Your task to perform on an android device: Go to CNN.com Image 0: 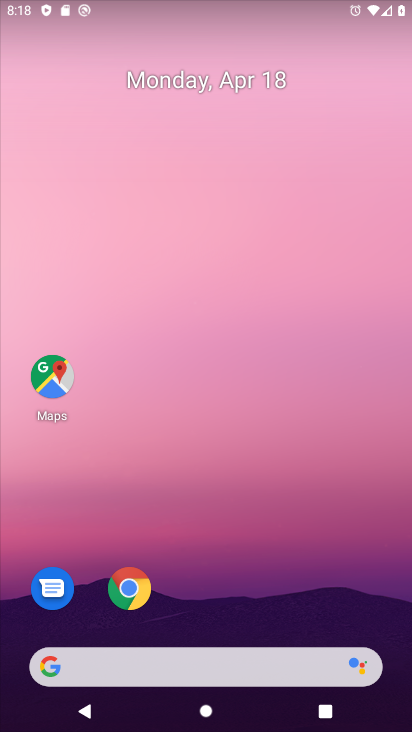
Step 0: click (189, 665)
Your task to perform on an android device: Go to CNN.com Image 1: 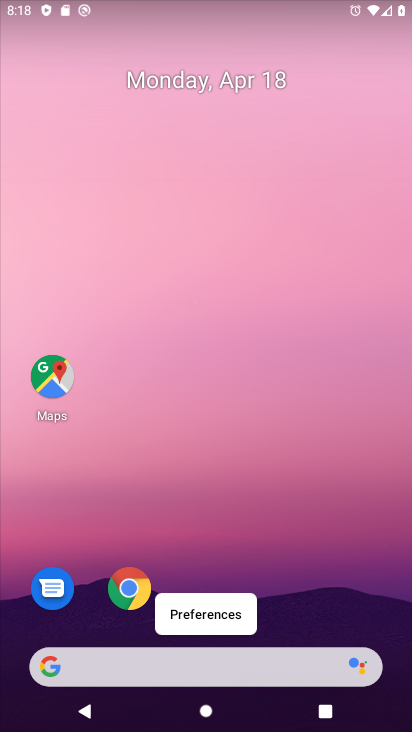
Step 1: drag from (292, 564) to (310, 2)
Your task to perform on an android device: Go to CNN.com Image 2: 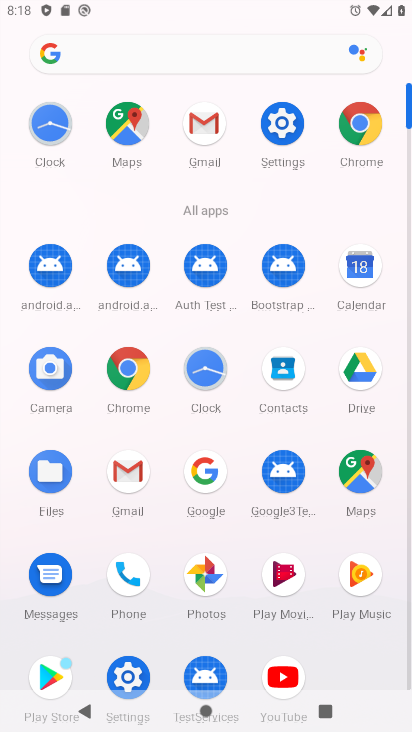
Step 2: click (204, 471)
Your task to perform on an android device: Go to CNN.com Image 3: 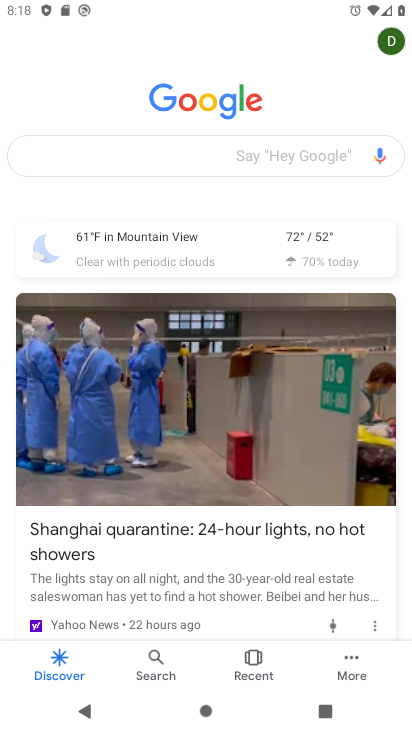
Step 3: click (185, 164)
Your task to perform on an android device: Go to CNN.com Image 4: 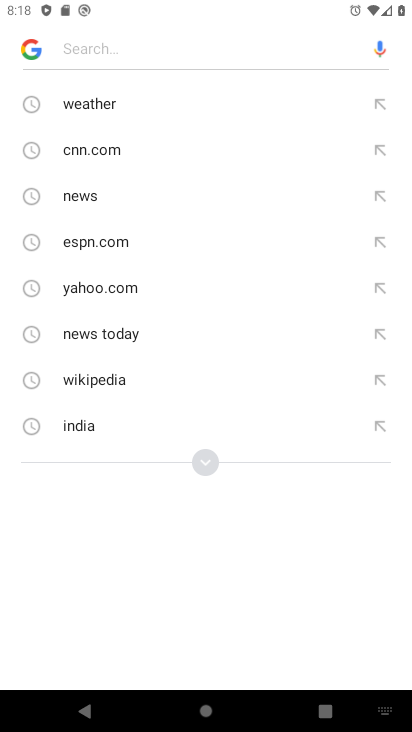
Step 4: click (120, 145)
Your task to perform on an android device: Go to CNN.com Image 5: 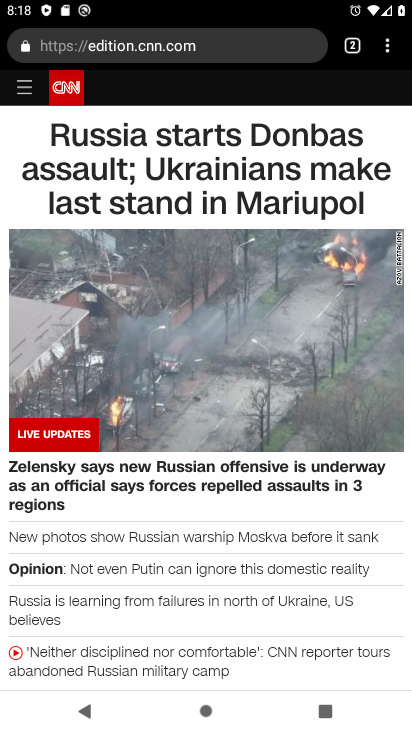
Step 5: task complete